Your task to perform on an android device: show emergency info Image 0: 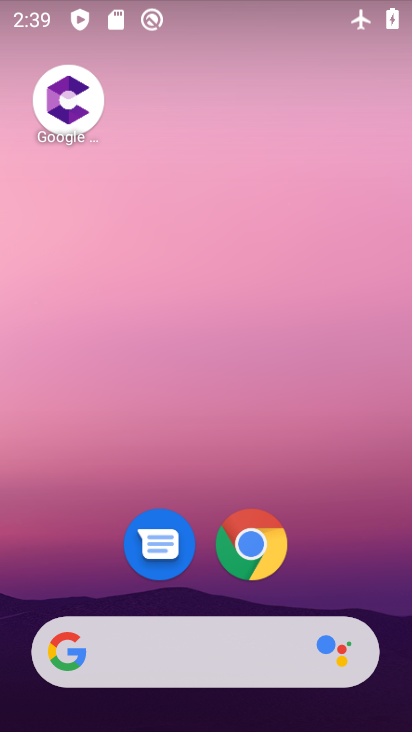
Step 0: press home button
Your task to perform on an android device: show emergency info Image 1: 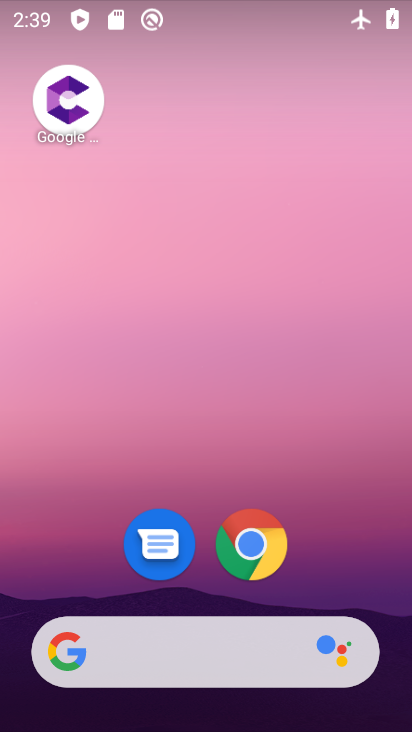
Step 1: drag from (202, 548) to (202, 187)
Your task to perform on an android device: show emergency info Image 2: 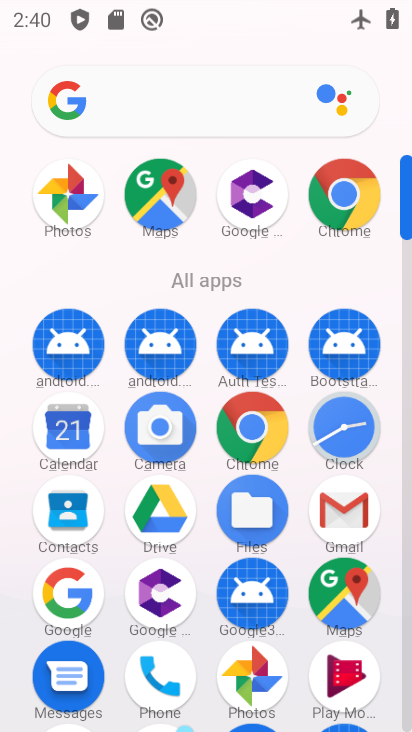
Step 2: drag from (197, 573) to (186, 93)
Your task to perform on an android device: show emergency info Image 3: 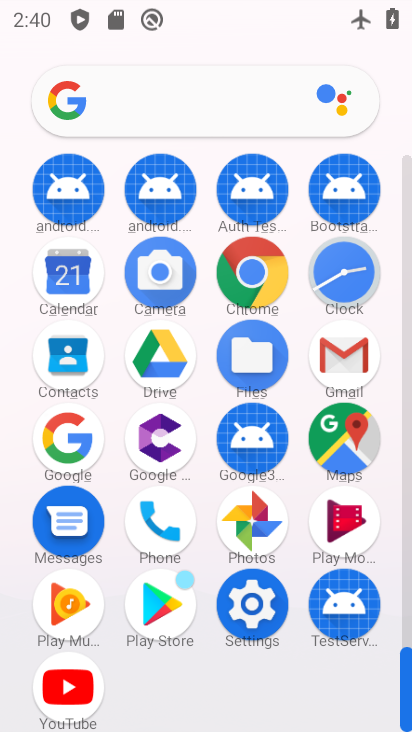
Step 3: click (238, 607)
Your task to perform on an android device: show emergency info Image 4: 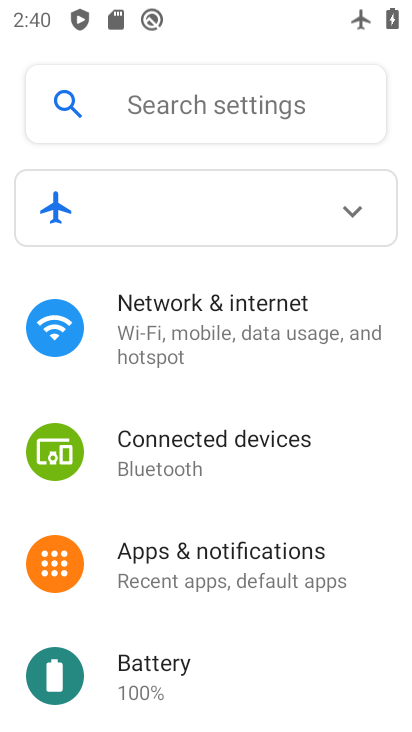
Step 4: drag from (229, 641) to (207, 173)
Your task to perform on an android device: show emergency info Image 5: 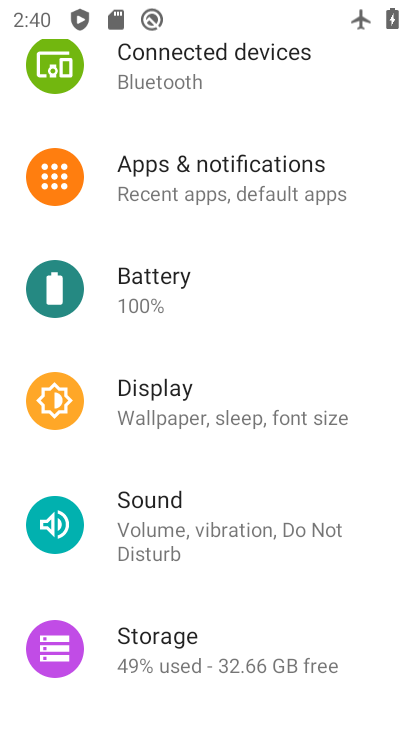
Step 5: drag from (210, 634) to (212, 173)
Your task to perform on an android device: show emergency info Image 6: 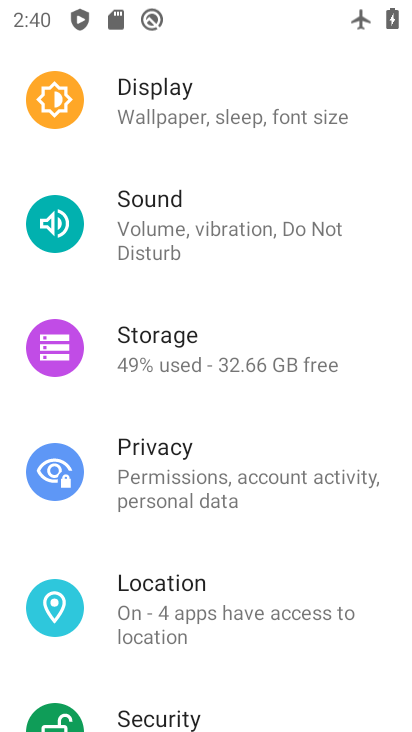
Step 6: drag from (224, 697) to (203, 181)
Your task to perform on an android device: show emergency info Image 7: 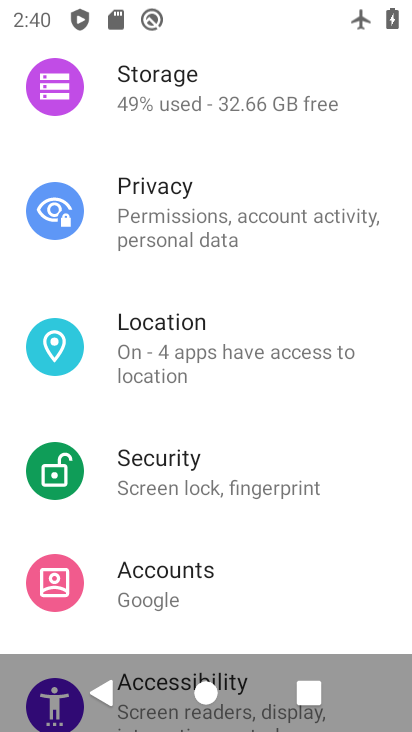
Step 7: drag from (209, 619) to (196, 121)
Your task to perform on an android device: show emergency info Image 8: 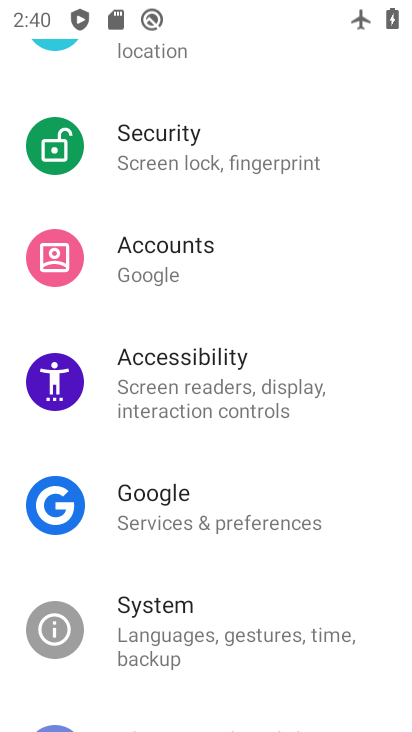
Step 8: drag from (206, 644) to (217, 89)
Your task to perform on an android device: show emergency info Image 9: 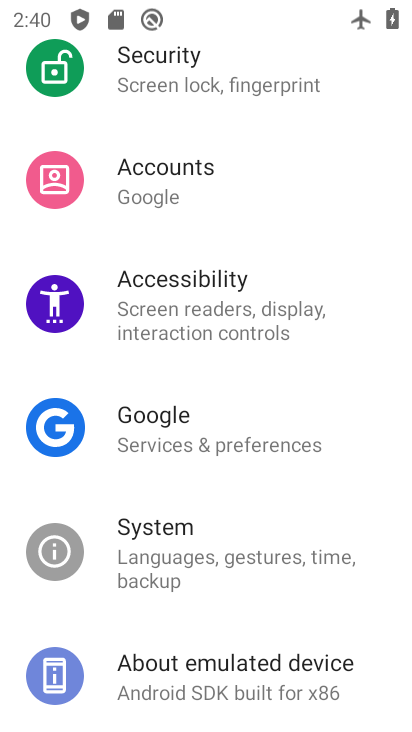
Step 9: click (208, 660)
Your task to perform on an android device: show emergency info Image 10: 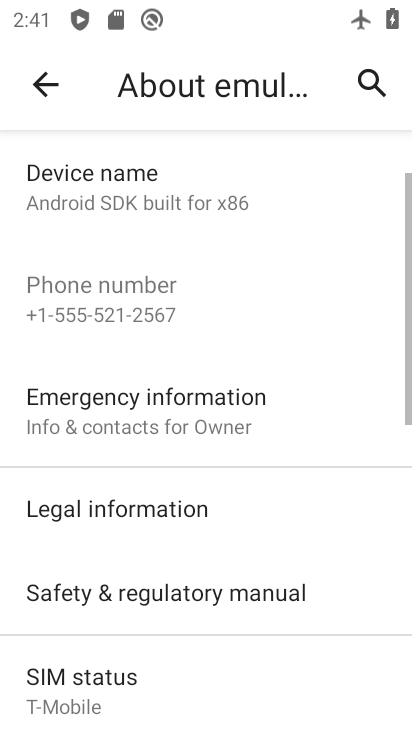
Step 10: click (203, 394)
Your task to perform on an android device: show emergency info Image 11: 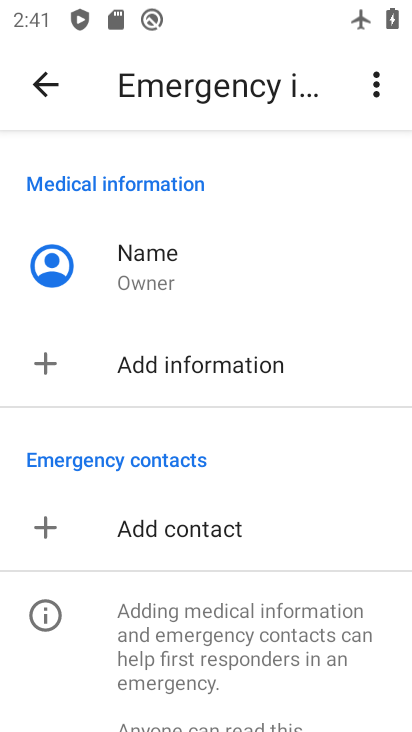
Step 11: task complete